Your task to perform on an android device: turn on location history Image 0: 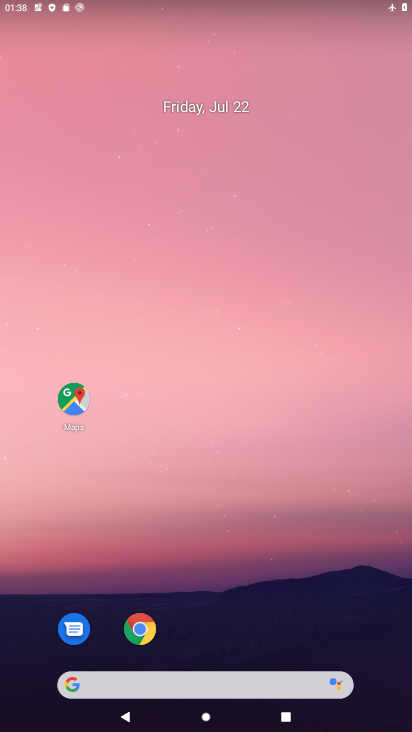
Step 0: drag from (61, 730) to (301, 105)
Your task to perform on an android device: turn on location history Image 1: 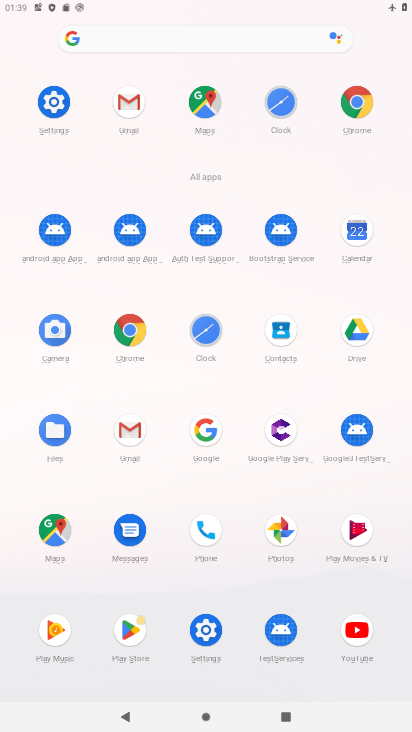
Step 1: click (41, 97)
Your task to perform on an android device: turn on location history Image 2: 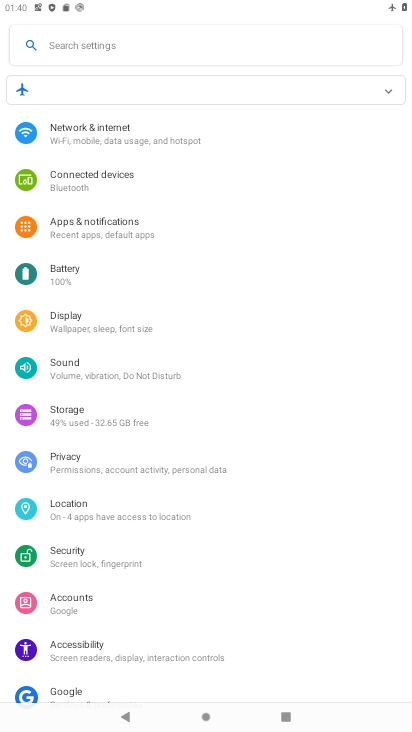
Step 2: click (80, 507)
Your task to perform on an android device: turn on location history Image 3: 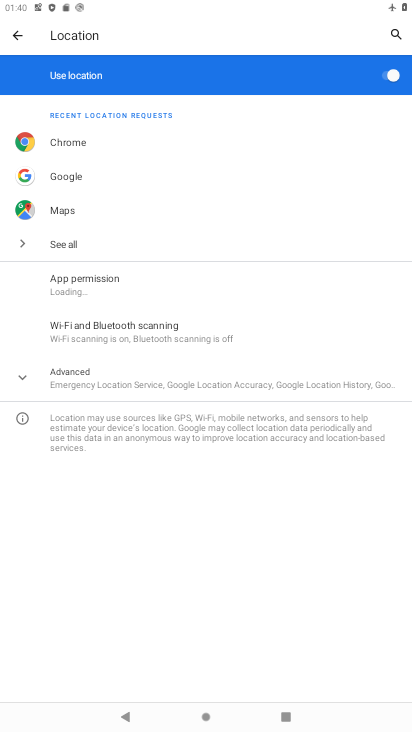
Step 3: click (159, 374)
Your task to perform on an android device: turn on location history Image 4: 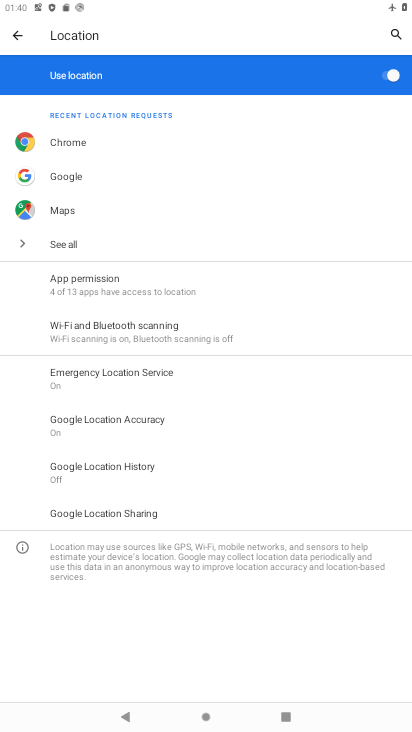
Step 4: click (150, 477)
Your task to perform on an android device: turn on location history Image 5: 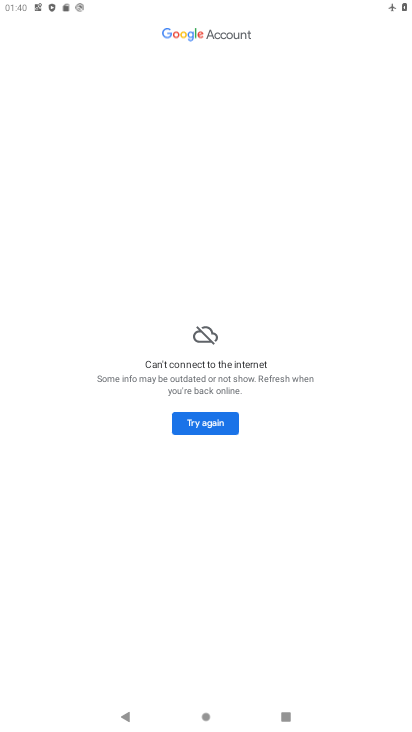
Step 5: drag from (354, 5) to (356, 353)
Your task to perform on an android device: turn on location history Image 6: 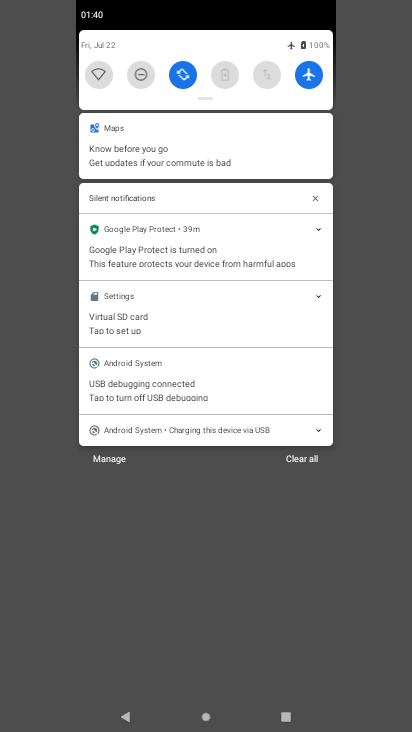
Step 6: click (312, 68)
Your task to perform on an android device: turn on location history Image 7: 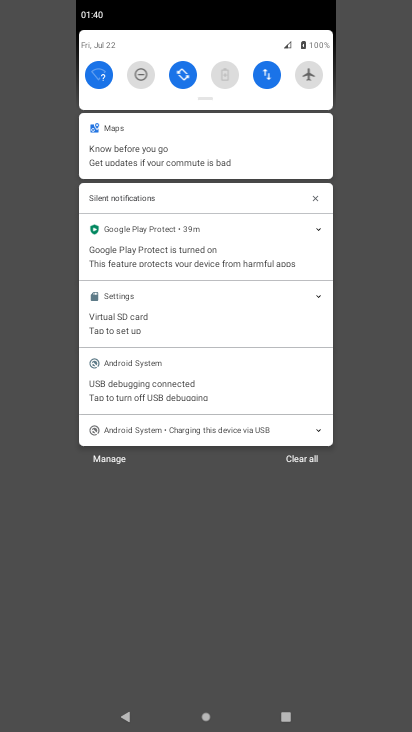
Step 7: task complete